Your task to perform on an android device: allow notifications from all sites in the chrome app Image 0: 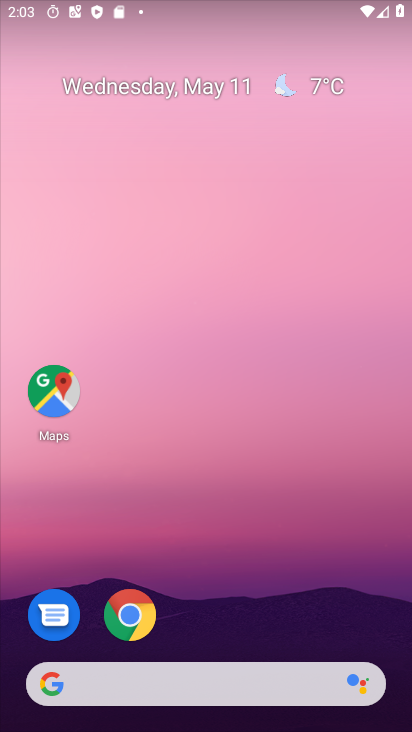
Step 0: click (122, 613)
Your task to perform on an android device: allow notifications from all sites in the chrome app Image 1: 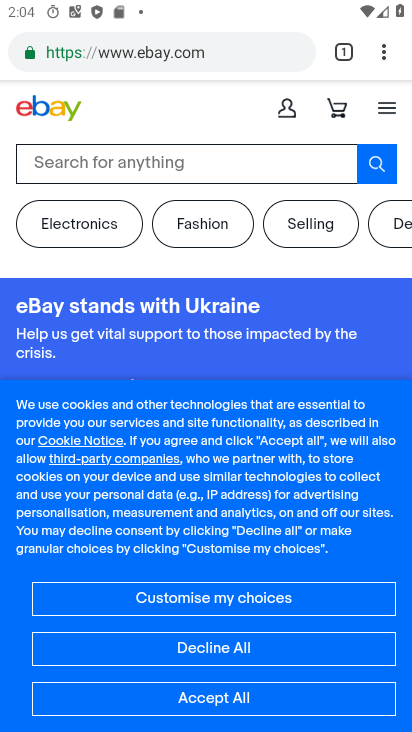
Step 1: press home button
Your task to perform on an android device: allow notifications from all sites in the chrome app Image 2: 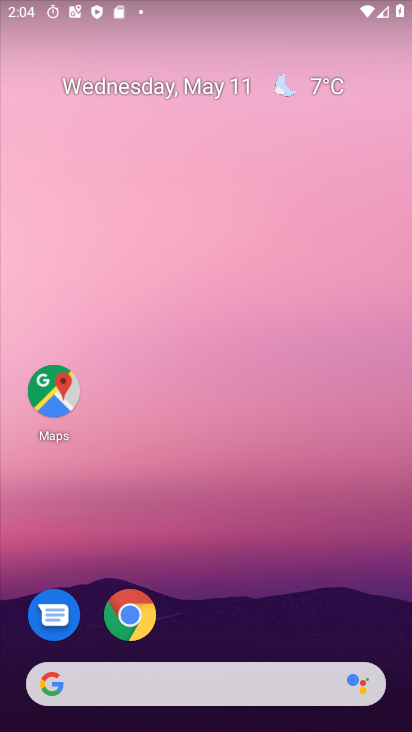
Step 2: click (135, 643)
Your task to perform on an android device: allow notifications from all sites in the chrome app Image 3: 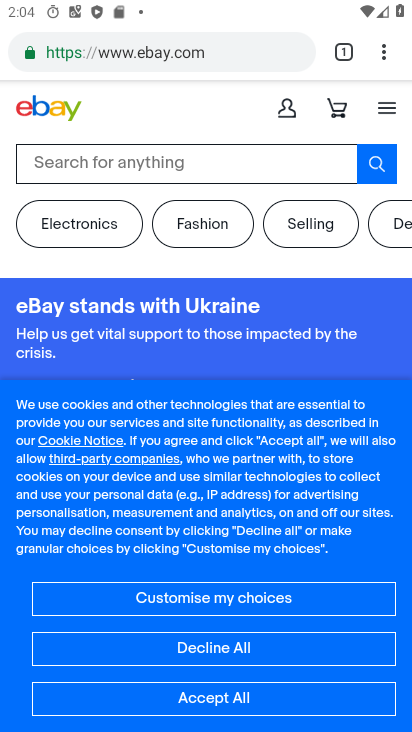
Step 3: click (389, 52)
Your task to perform on an android device: allow notifications from all sites in the chrome app Image 4: 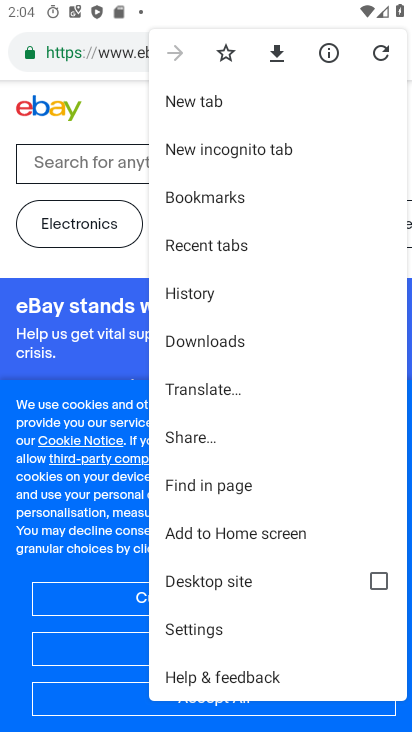
Step 4: click (218, 636)
Your task to perform on an android device: allow notifications from all sites in the chrome app Image 5: 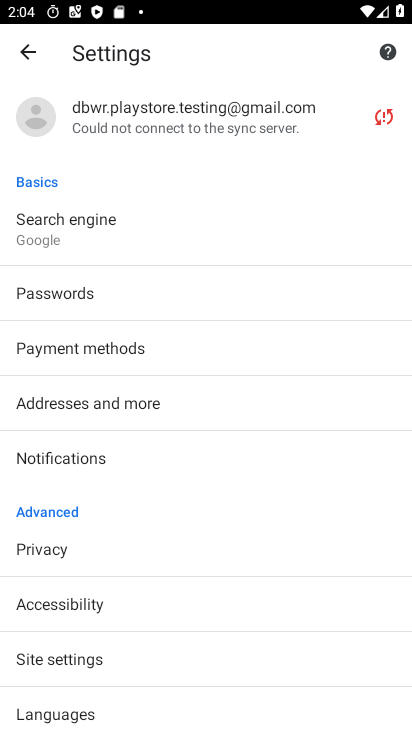
Step 5: click (121, 654)
Your task to perform on an android device: allow notifications from all sites in the chrome app Image 6: 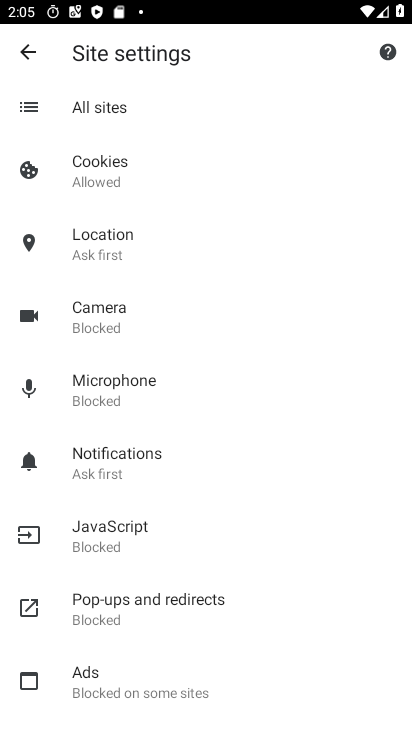
Step 6: click (108, 456)
Your task to perform on an android device: allow notifications from all sites in the chrome app Image 7: 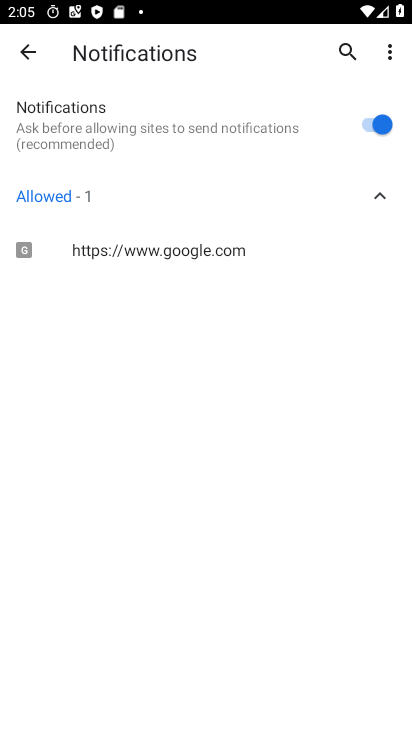
Step 7: task complete